Your task to perform on an android device: toggle translation in the chrome app Image 0: 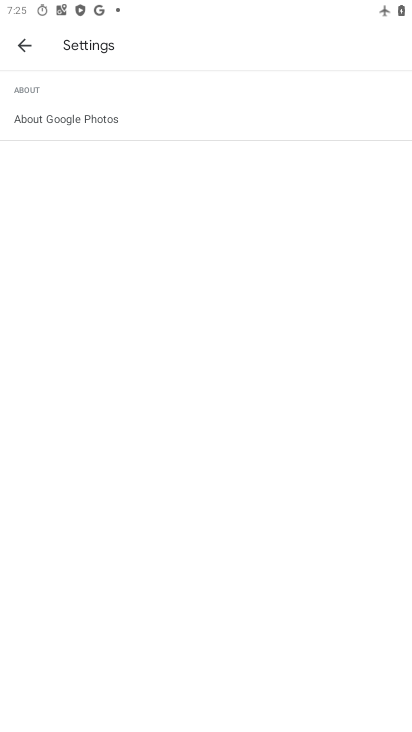
Step 0: press home button
Your task to perform on an android device: toggle translation in the chrome app Image 1: 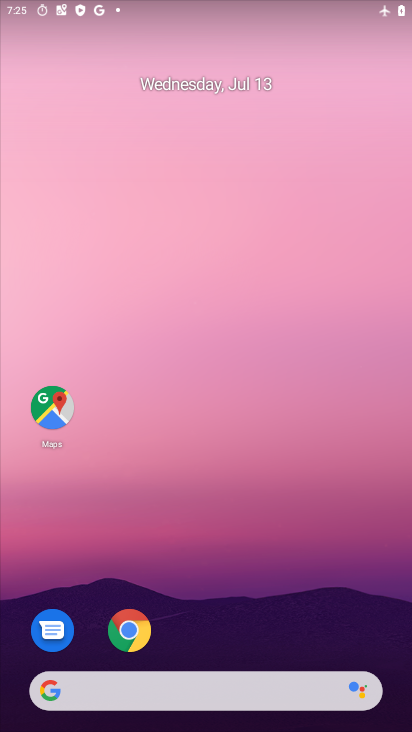
Step 1: drag from (212, 643) to (282, 28)
Your task to perform on an android device: toggle translation in the chrome app Image 2: 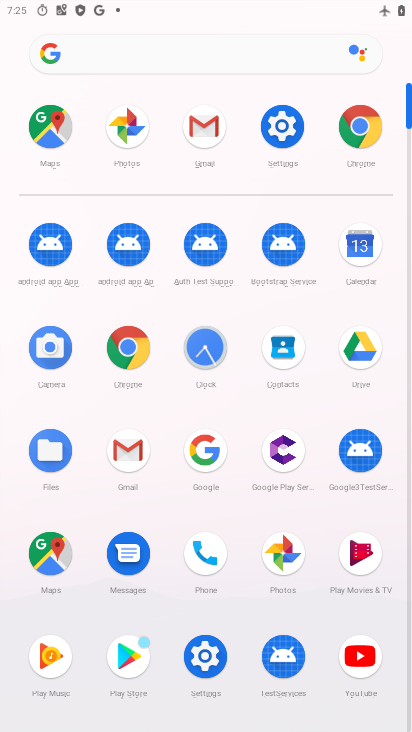
Step 2: click (344, 126)
Your task to perform on an android device: toggle translation in the chrome app Image 3: 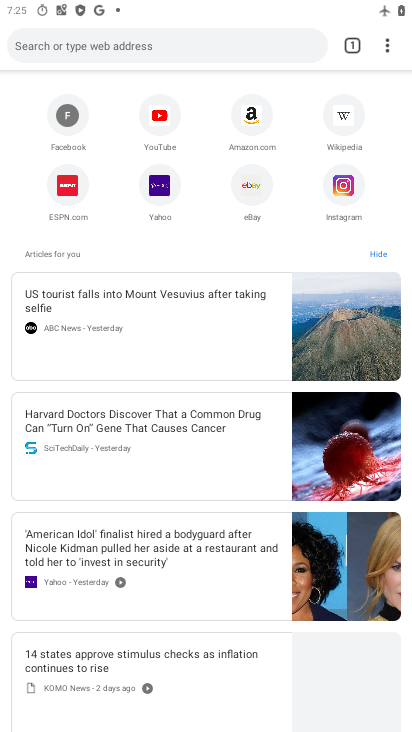
Step 3: click (384, 44)
Your task to perform on an android device: toggle translation in the chrome app Image 4: 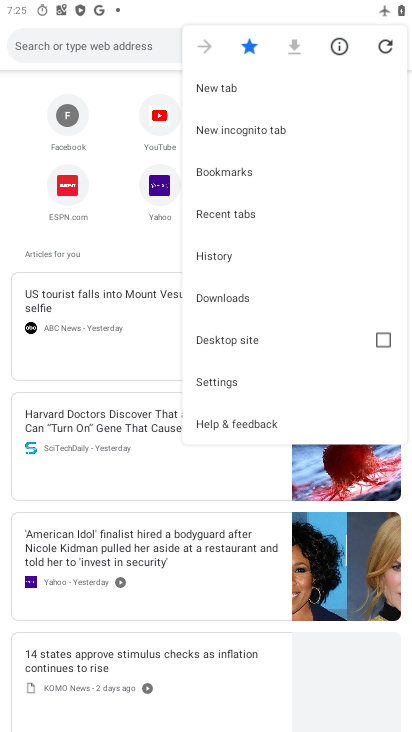
Step 4: click (263, 383)
Your task to perform on an android device: toggle translation in the chrome app Image 5: 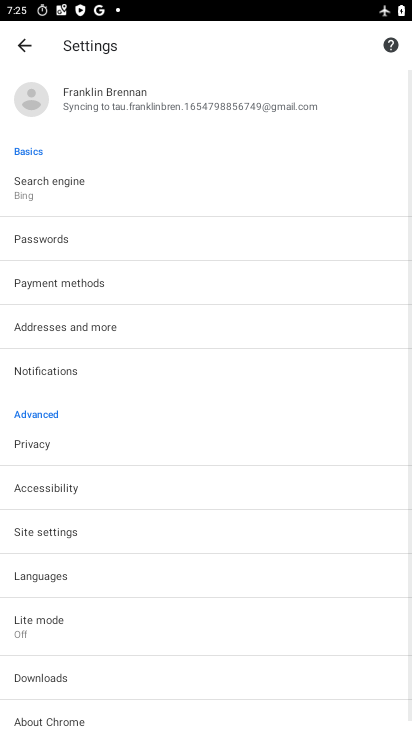
Step 5: click (138, 581)
Your task to perform on an android device: toggle translation in the chrome app Image 6: 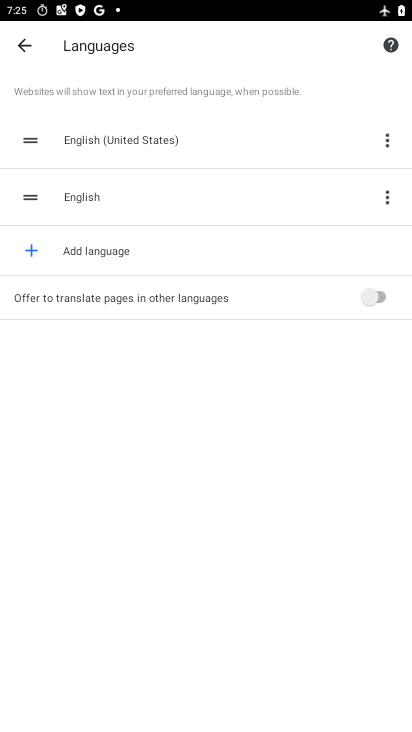
Step 6: click (384, 289)
Your task to perform on an android device: toggle translation in the chrome app Image 7: 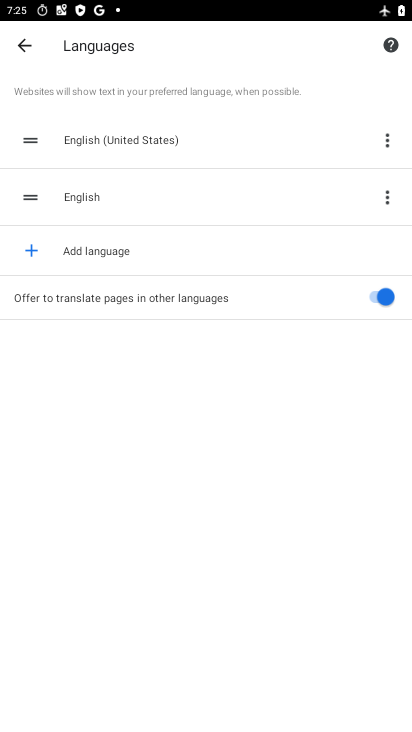
Step 7: task complete